Your task to perform on an android device: see sites visited before in the chrome app Image 0: 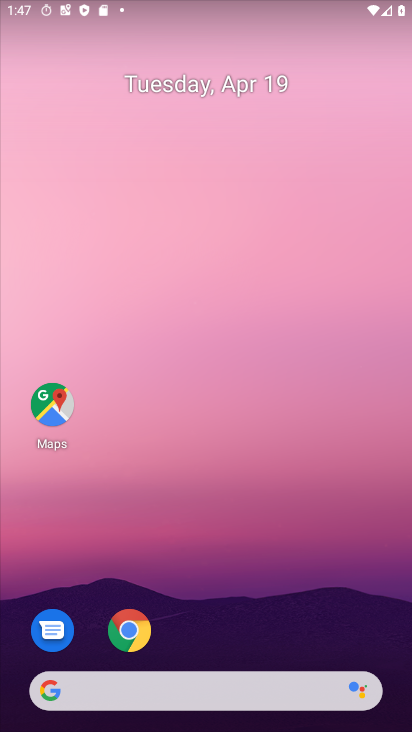
Step 0: click (137, 624)
Your task to perform on an android device: see sites visited before in the chrome app Image 1: 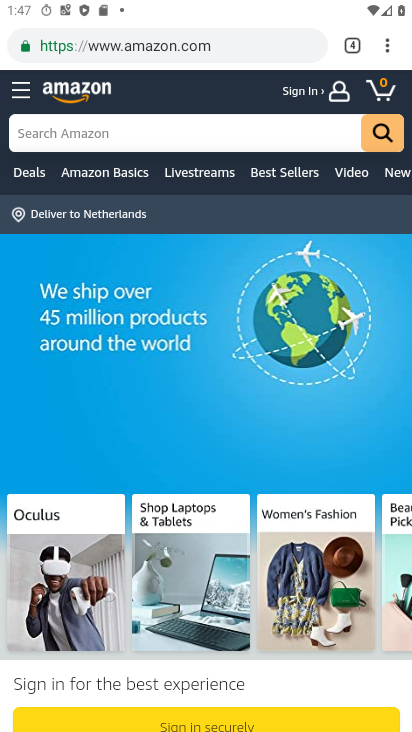
Step 1: click (387, 52)
Your task to perform on an android device: see sites visited before in the chrome app Image 2: 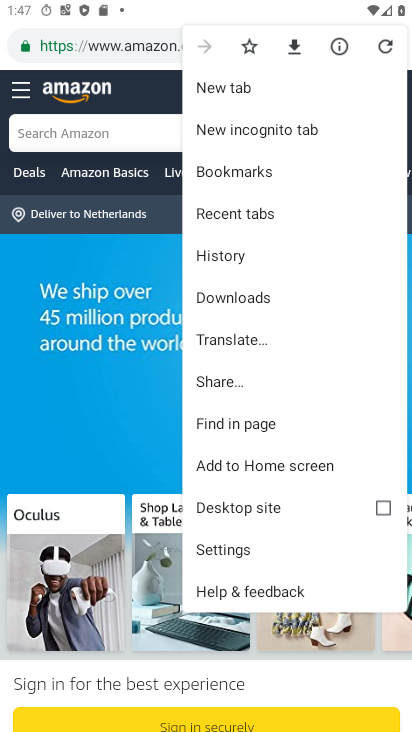
Step 2: click (229, 250)
Your task to perform on an android device: see sites visited before in the chrome app Image 3: 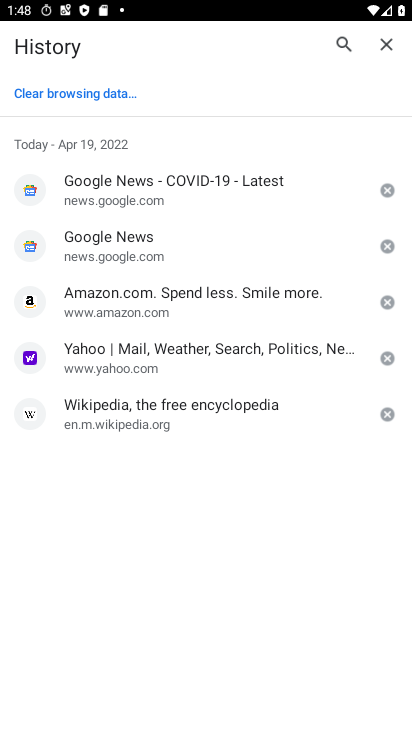
Step 3: task complete